Your task to perform on an android device: check android version Image 0: 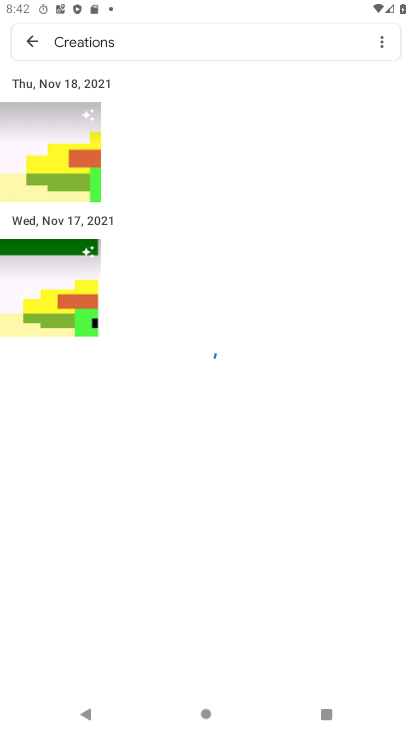
Step 0: press home button
Your task to perform on an android device: check android version Image 1: 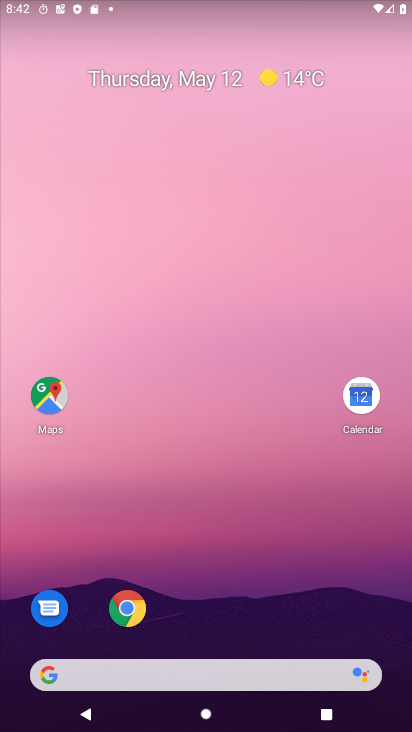
Step 1: drag from (242, 549) to (196, 294)
Your task to perform on an android device: check android version Image 2: 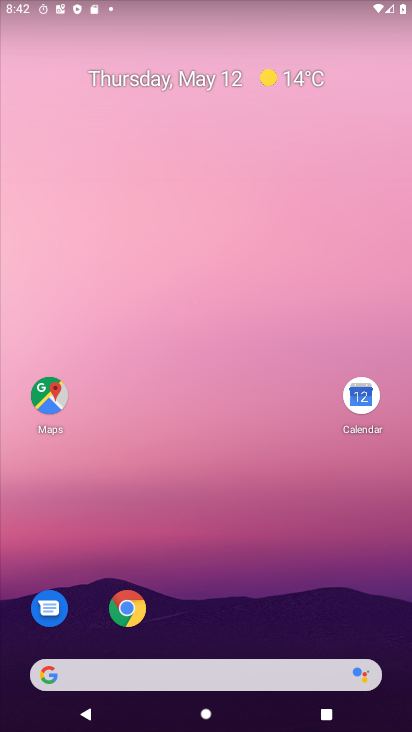
Step 2: drag from (206, 529) to (217, 250)
Your task to perform on an android device: check android version Image 3: 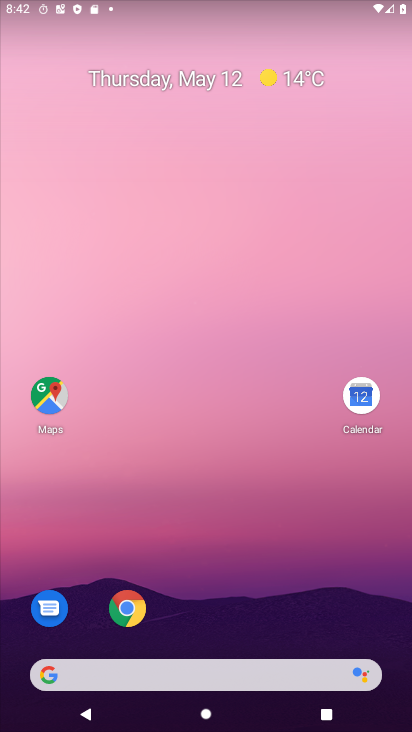
Step 3: drag from (202, 630) to (282, 113)
Your task to perform on an android device: check android version Image 4: 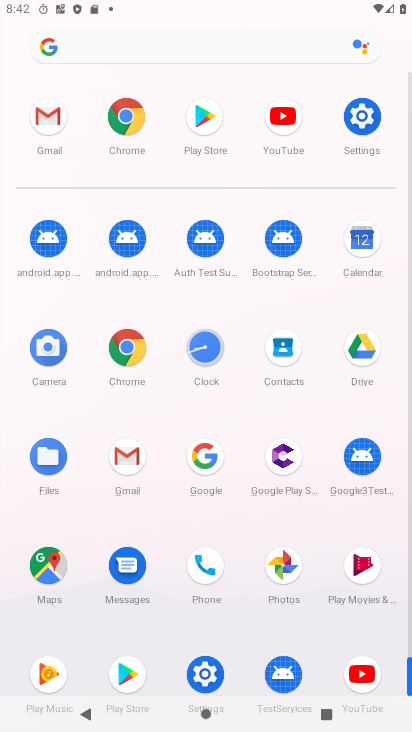
Step 4: click (367, 110)
Your task to perform on an android device: check android version Image 5: 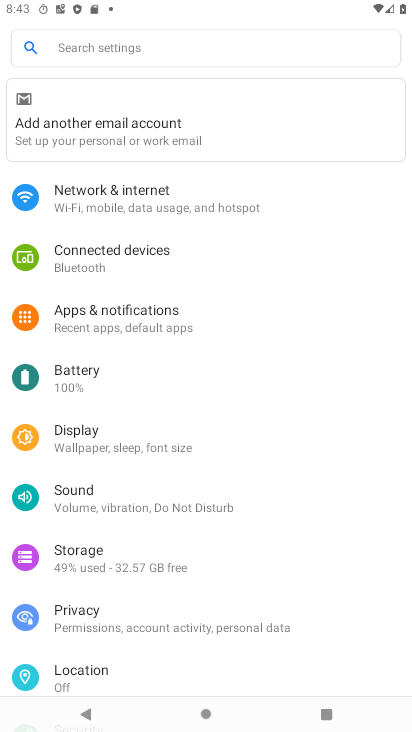
Step 5: drag from (306, 550) to (329, 208)
Your task to perform on an android device: check android version Image 6: 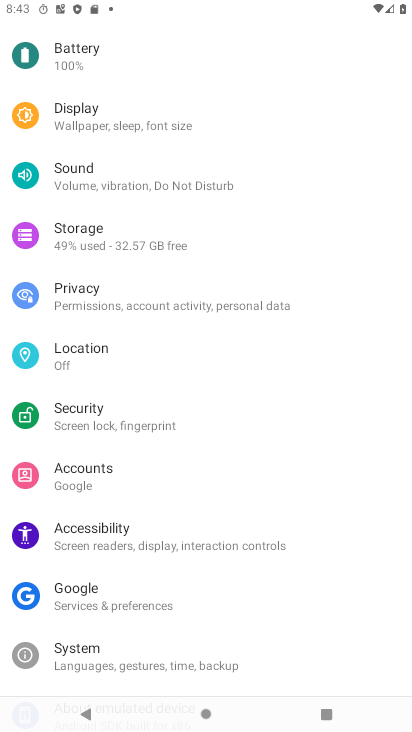
Step 6: drag from (216, 339) to (332, 593)
Your task to perform on an android device: check android version Image 7: 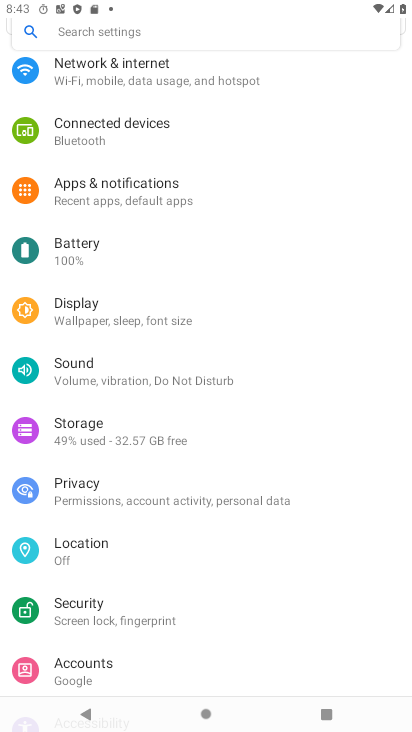
Step 7: drag from (284, 234) to (337, 588)
Your task to perform on an android device: check android version Image 8: 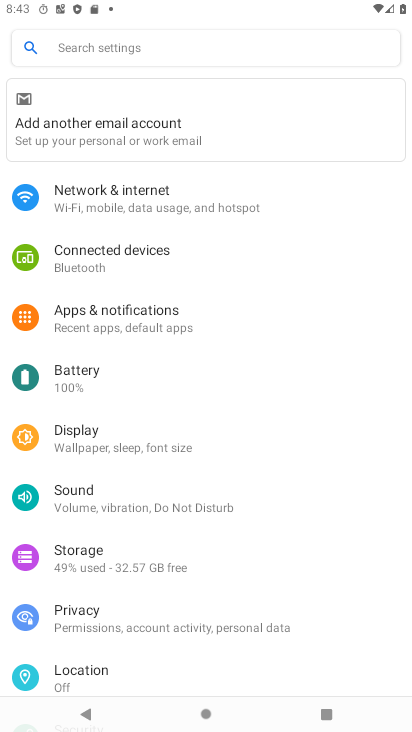
Step 8: drag from (171, 653) to (133, 297)
Your task to perform on an android device: check android version Image 9: 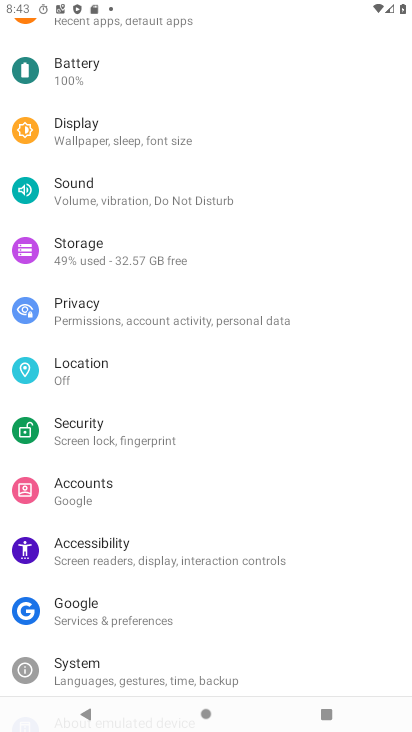
Step 9: drag from (217, 616) to (145, 131)
Your task to perform on an android device: check android version Image 10: 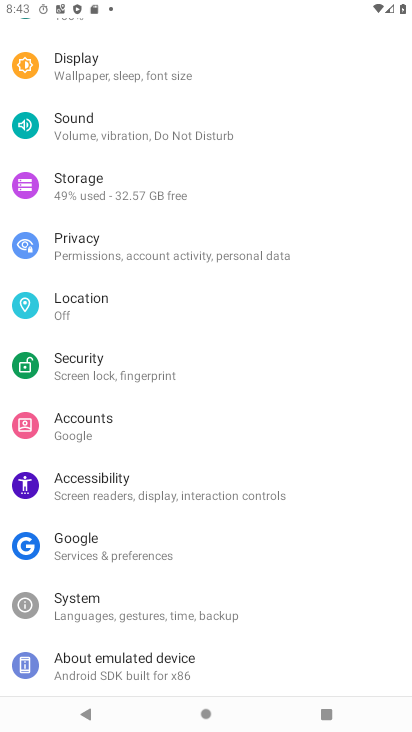
Step 10: click (165, 661)
Your task to perform on an android device: check android version Image 11: 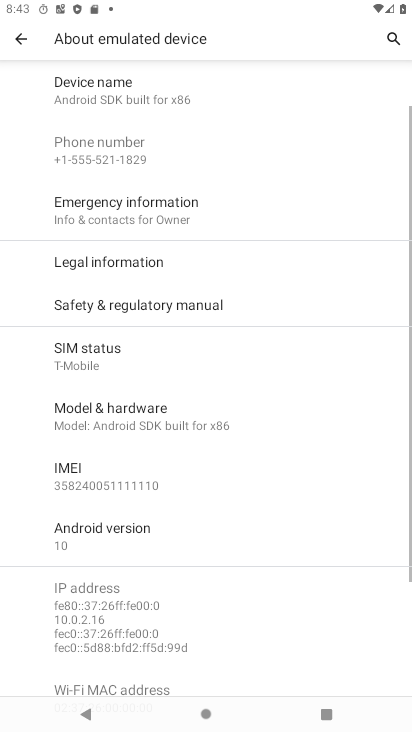
Step 11: click (212, 528)
Your task to perform on an android device: check android version Image 12: 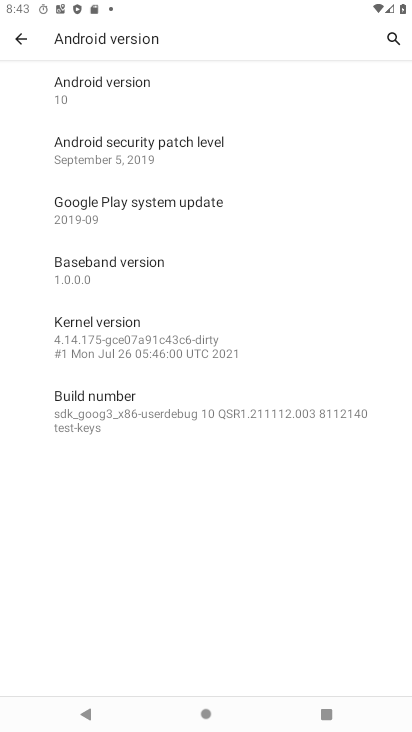
Step 12: task complete